Your task to perform on an android device: turn on the 12-hour format for clock Image 0: 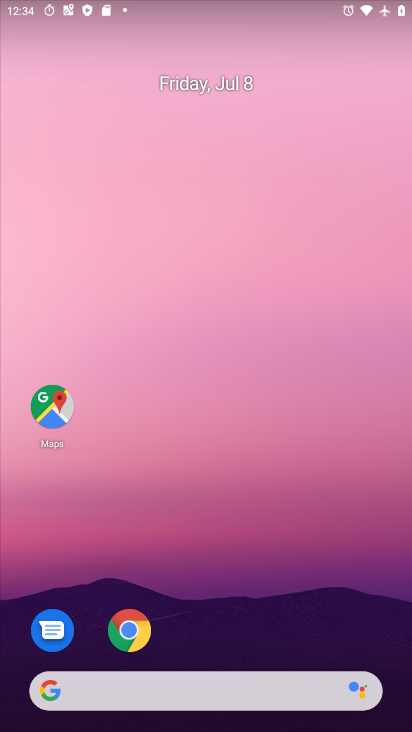
Step 0: drag from (174, 633) to (154, 195)
Your task to perform on an android device: turn on the 12-hour format for clock Image 1: 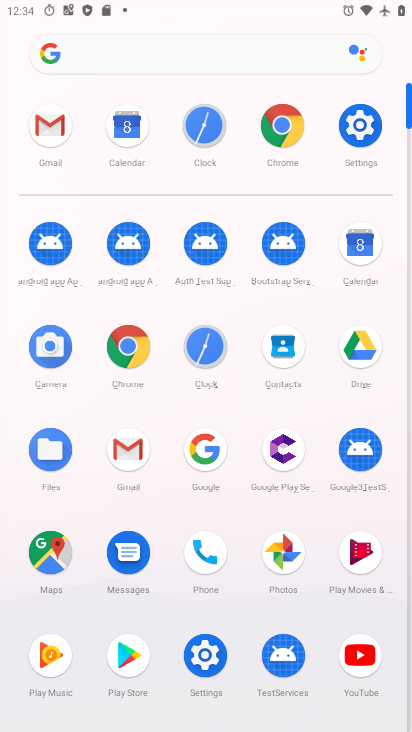
Step 1: click (219, 132)
Your task to perform on an android device: turn on the 12-hour format for clock Image 2: 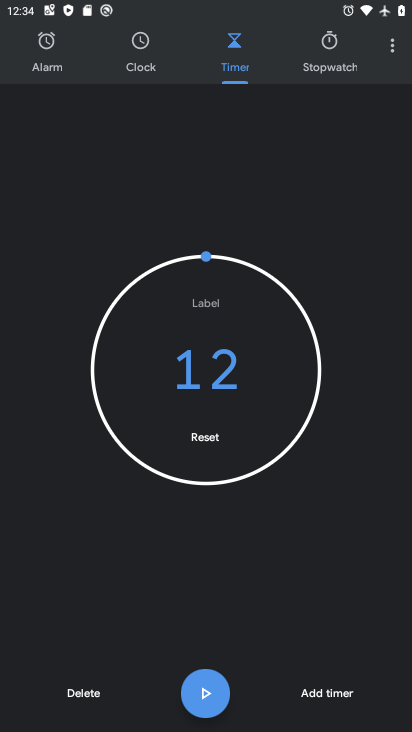
Step 2: click (392, 48)
Your task to perform on an android device: turn on the 12-hour format for clock Image 3: 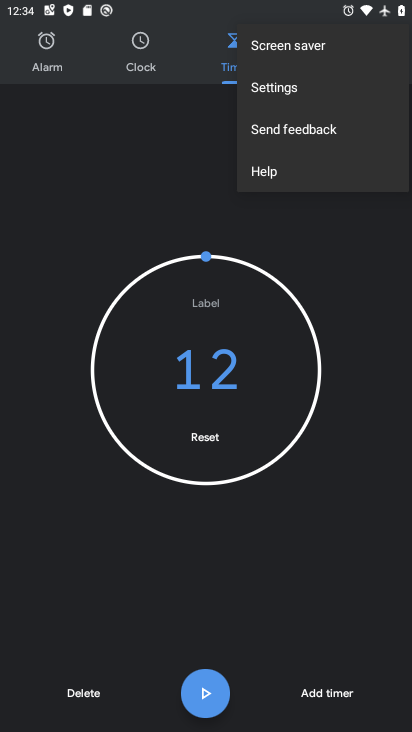
Step 3: click (316, 97)
Your task to perform on an android device: turn on the 12-hour format for clock Image 4: 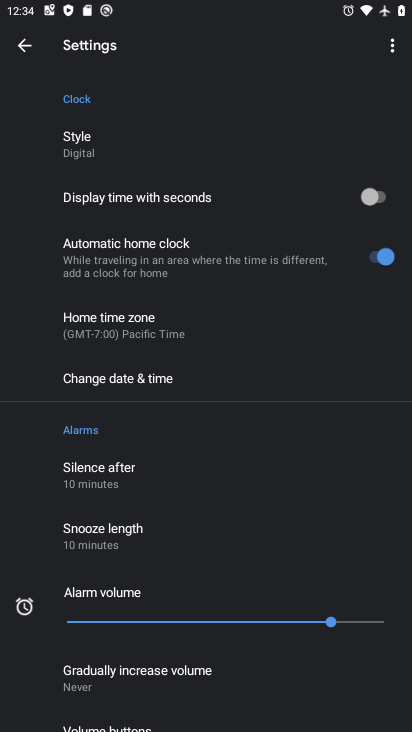
Step 4: click (156, 372)
Your task to perform on an android device: turn on the 12-hour format for clock Image 5: 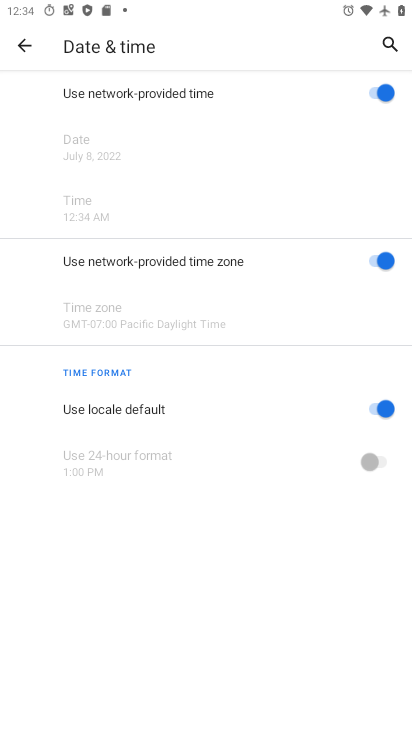
Step 5: task complete